Your task to perform on an android device: remove spam from my inbox in the gmail app Image 0: 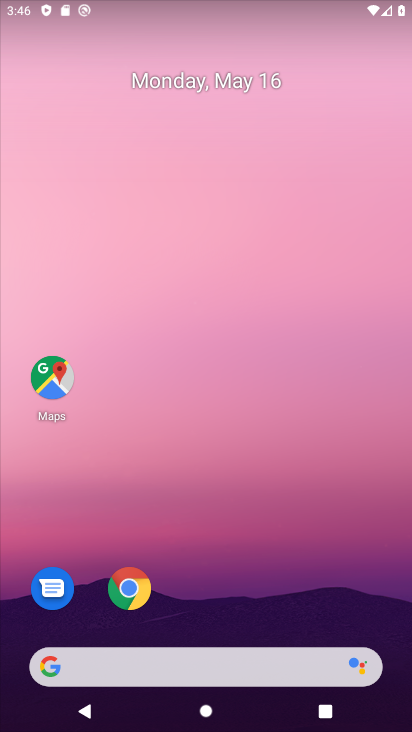
Step 0: drag from (153, 634) to (243, 158)
Your task to perform on an android device: remove spam from my inbox in the gmail app Image 1: 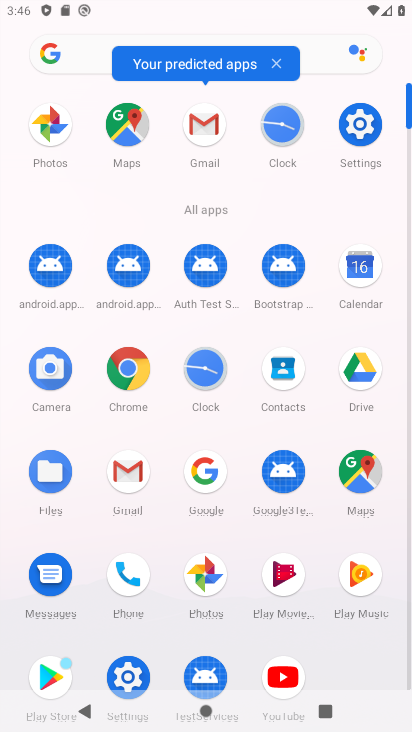
Step 1: click (121, 485)
Your task to perform on an android device: remove spam from my inbox in the gmail app Image 2: 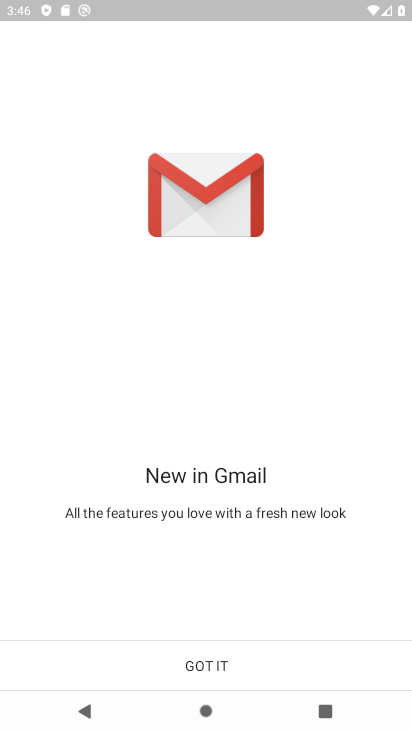
Step 2: click (228, 660)
Your task to perform on an android device: remove spam from my inbox in the gmail app Image 3: 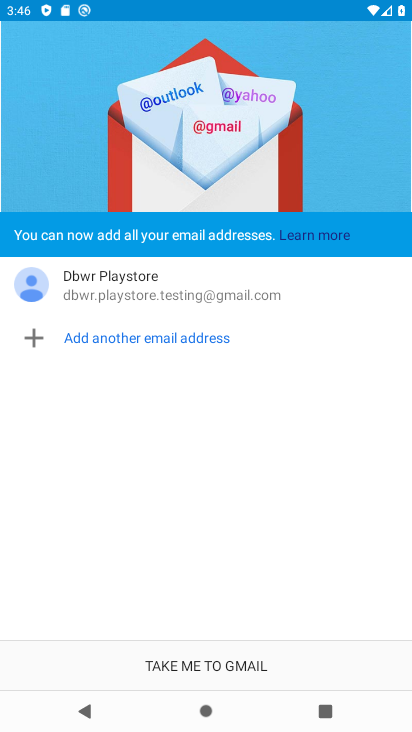
Step 3: click (231, 652)
Your task to perform on an android device: remove spam from my inbox in the gmail app Image 4: 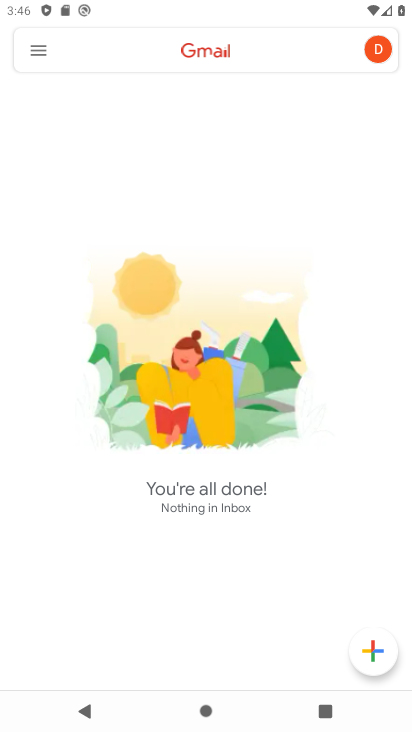
Step 4: click (55, 51)
Your task to perform on an android device: remove spam from my inbox in the gmail app Image 5: 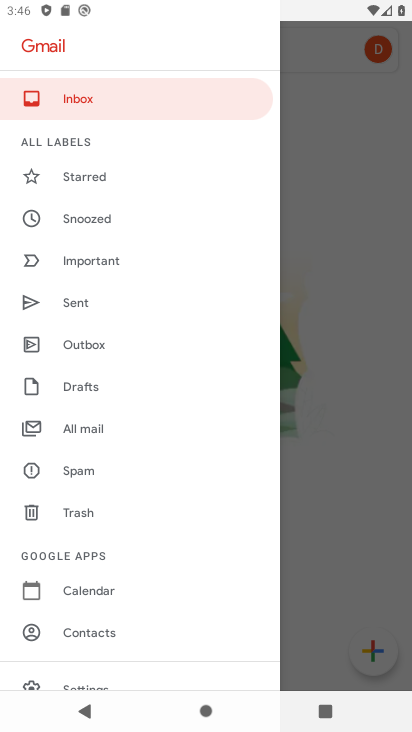
Step 5: click (112, 459)
Your task to perform on an android device: remove spam from my inbox in the gmail app Image 6: 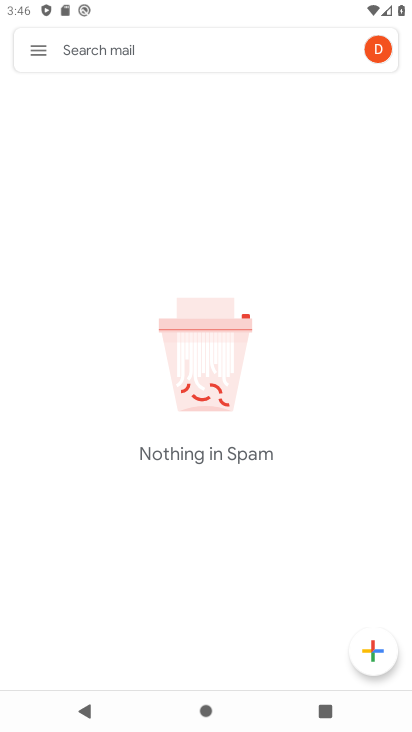
Step 6: task complete